Your task to perform on an android device: Open Youtube and go to "Your channel" Image 0: 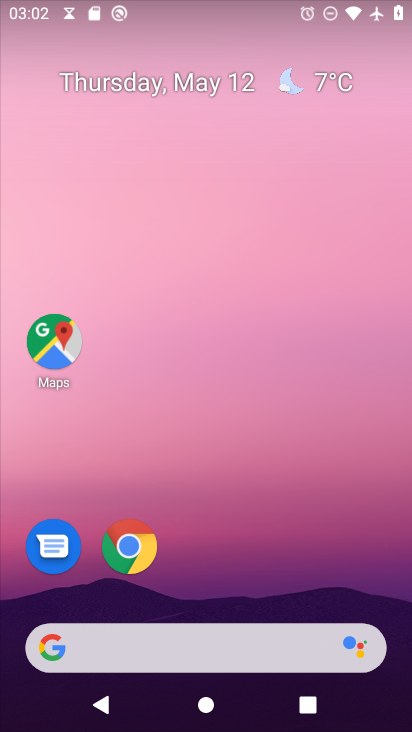
Step 0: press home button
Your task to perform on an android device: Open Youtube and go to "Your channel" Image 1: 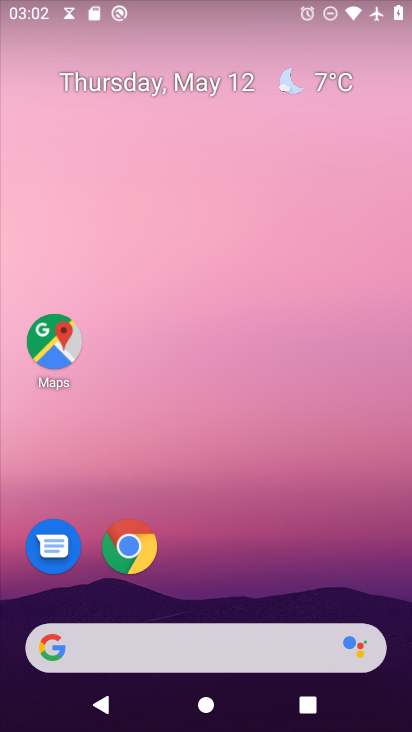
Step 1: drag from (191, 646) to (270, 196)
Your task to perform on an android device: Open Youtube and go to "Your channel" Image 2: 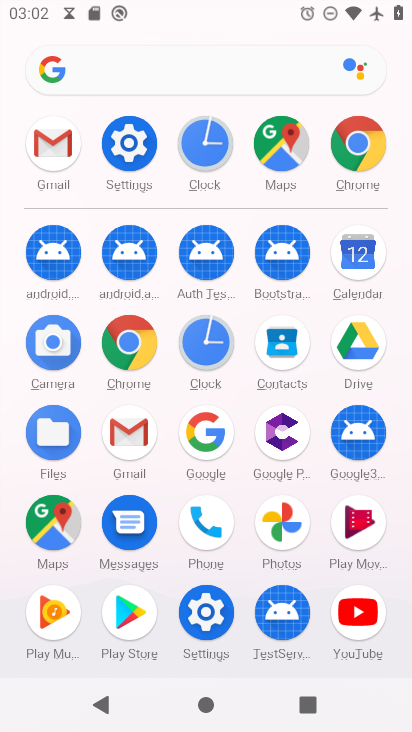
Step 2: click (364, 618)
Your task to perform on an android device: Open Youtube and go to "Your channel" Image 3: 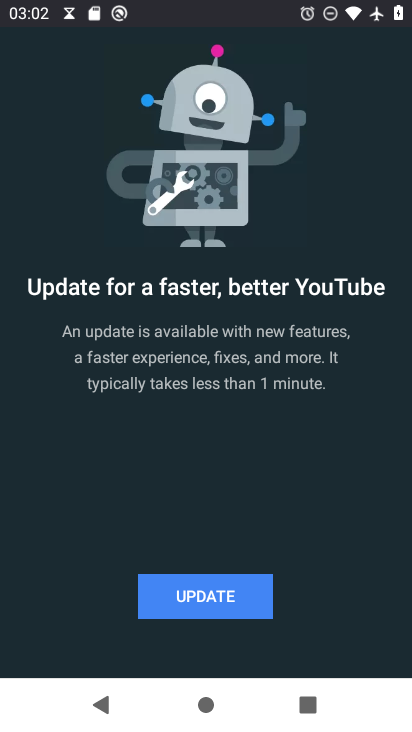
Step 3: click (221, 600)
Your task to perform on an android device: Open Youtube and go to "Your channel" Image 4: 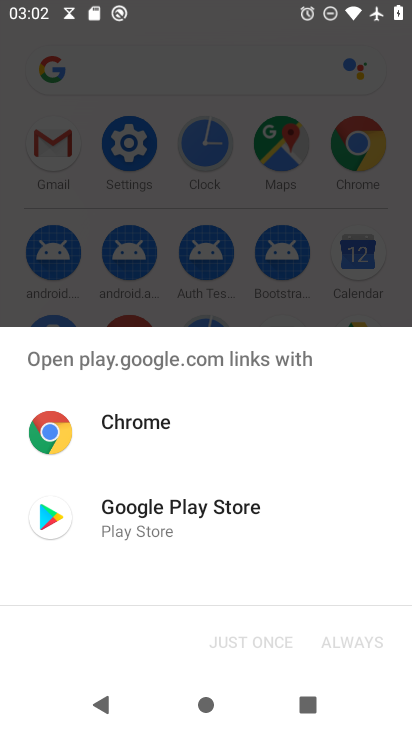
Step 4: click (141, 516)
Your task to perform on an android device: Open Youtube and go to "Your channel" Image 5: 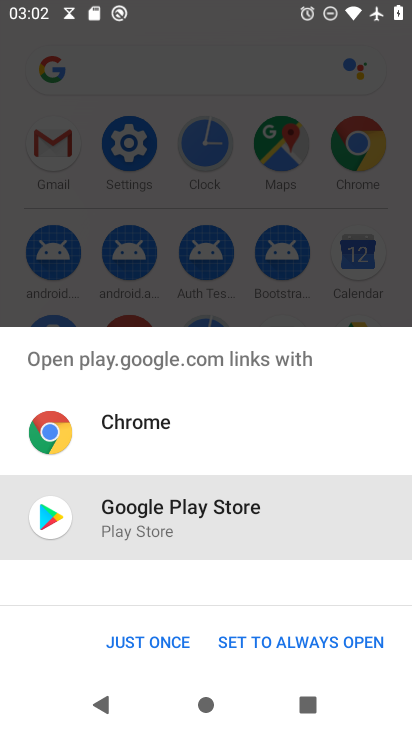
Step 5: click (141, 637)
Your task to perform on an android device: Open Youtube and go to "Your channel" Image 6: 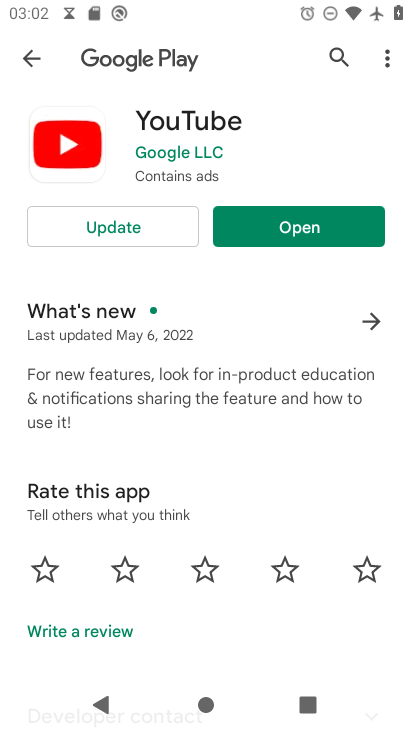
Step 6: click (157, 230)
Your task to perform on an android device: Open Youtube and go to "Your channel" Image 7: 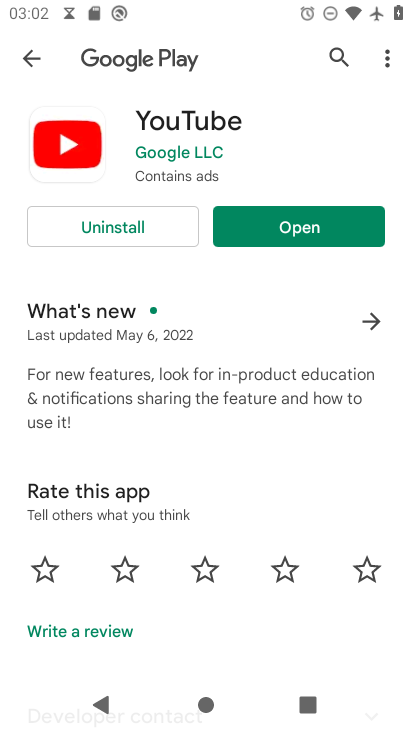
Step 7: click (281, 229)
Your task to perform on an android device: Open Youtube and go to "Your channel" Image 8: 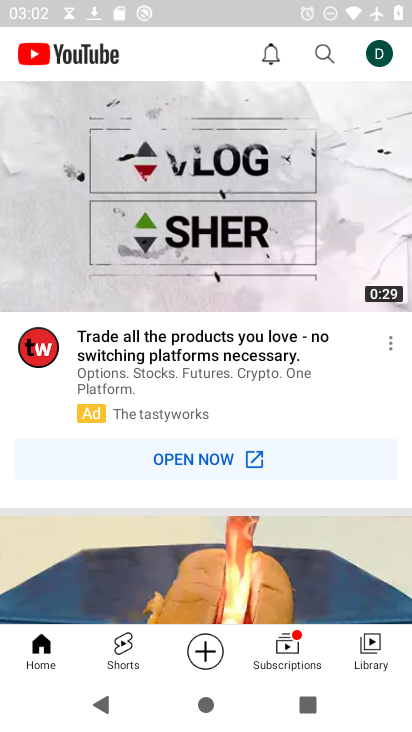
Step 8: click (372, 58)
Your task to perform on an android device: Open Youtube and go to "Your channel" Image 9: 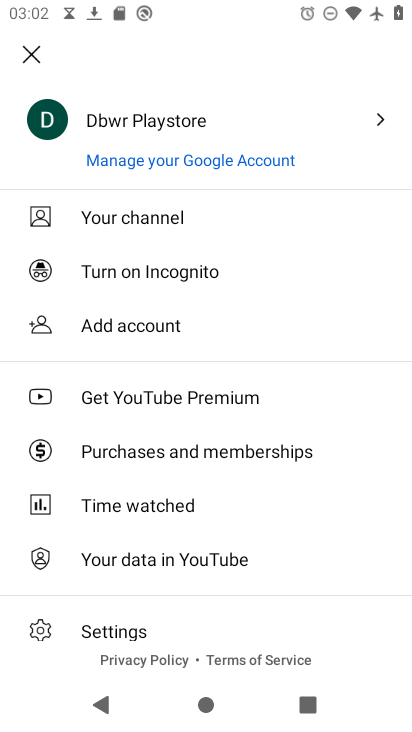
Step 9: click (152, 213)
Your task to perform on an android device: Open Youtube and go to "Your channel" Image 10: 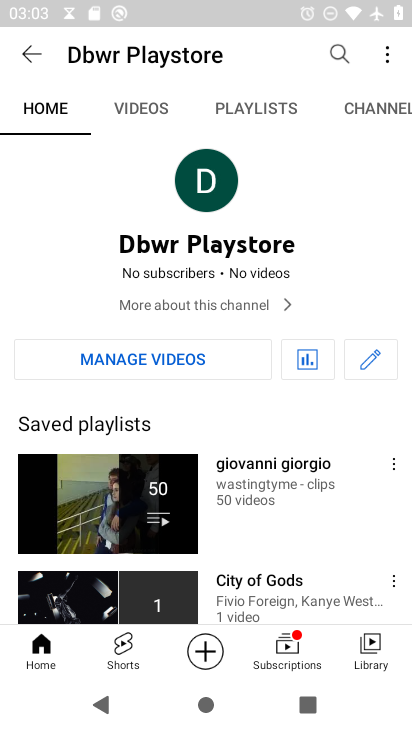
Step 10: task complete